Your task to perform on an android device: turn off translation in the chrome app Image 0: 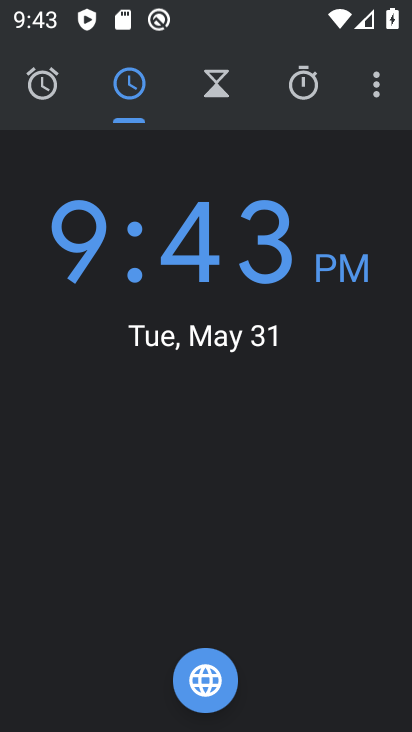
Step 0: press home button
Your task to perform on an android device: turn off translation in the chrome app Image 1: 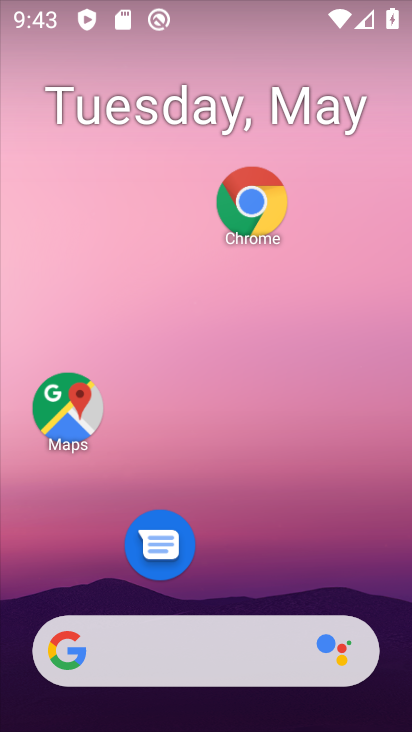
Step 1: drag from (394, 614) to (319, 116)
Your task to perform on an android device: turn off translation in the chrome app Image 2: 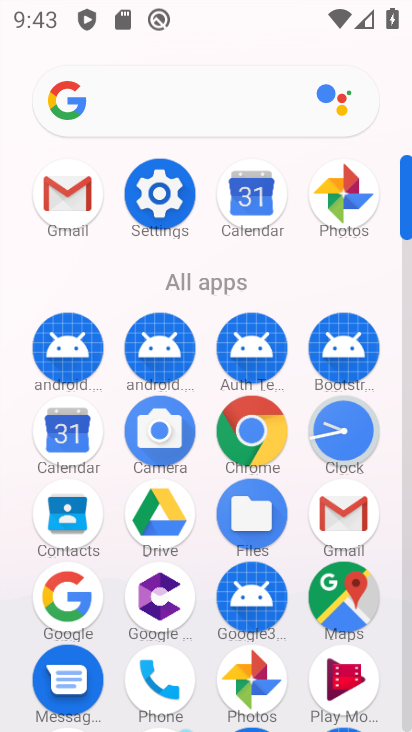
Step 2: click (256, 443)
Your task to perform on an android device: turn off translation in the chrome app Image 3: 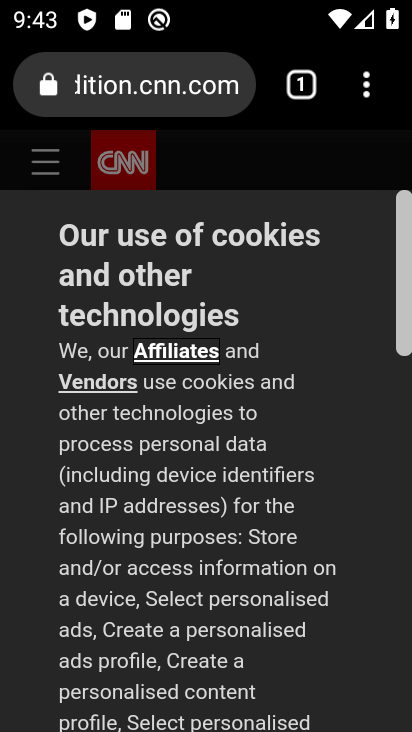
Step 3: click (380, 106)
Your task to perform on an android device: turn off translation in the chrome app Image 4: 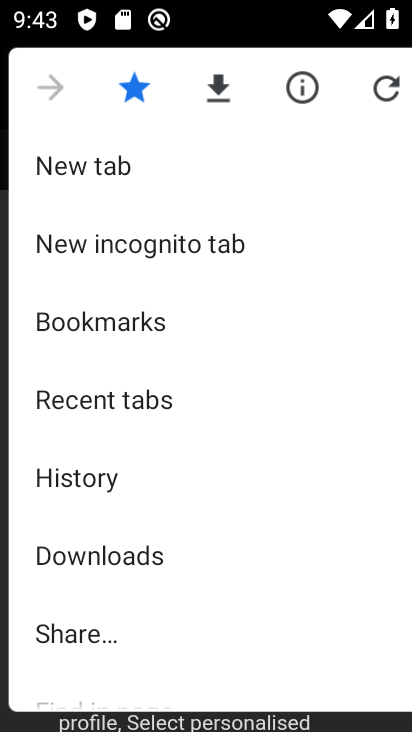
Step 4: drag from (220, 651) to (166, 167)
Your task to perform on an android device: turn off translation in the chrome app Image 5: 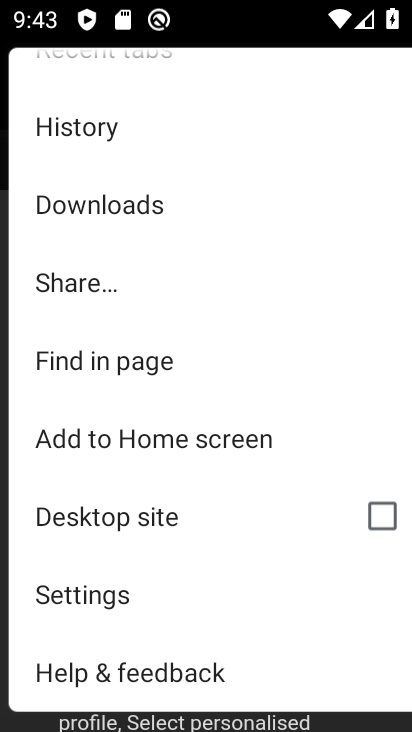
Step 5: click (164, 592)
Your task to perform on an android device: turn off translation in the chrome app Image 6: 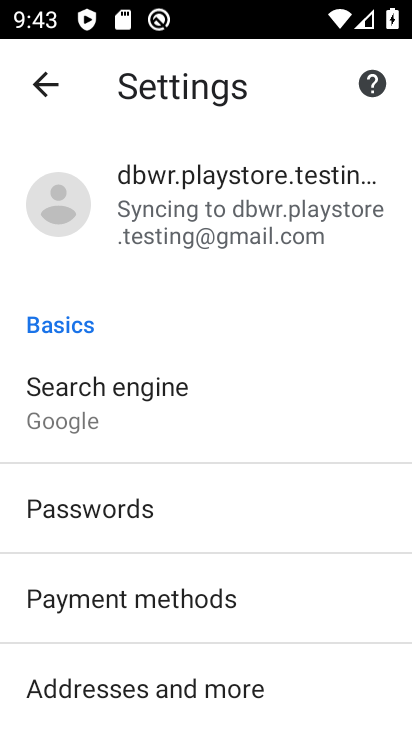
Step 6: drag from (217, 656) to (200, 108)
Your task to perform on an android device: turn off translation in the chrome app Image 7: 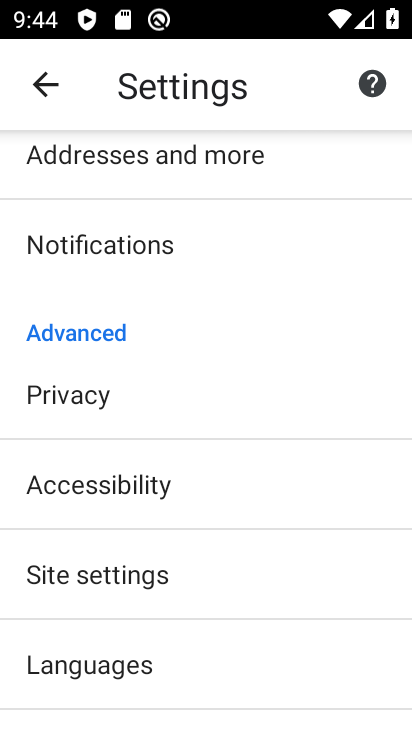
Step 7: click (198, 652)
Your task to perform on an android device: turn off translation in the chrome app Image 8: 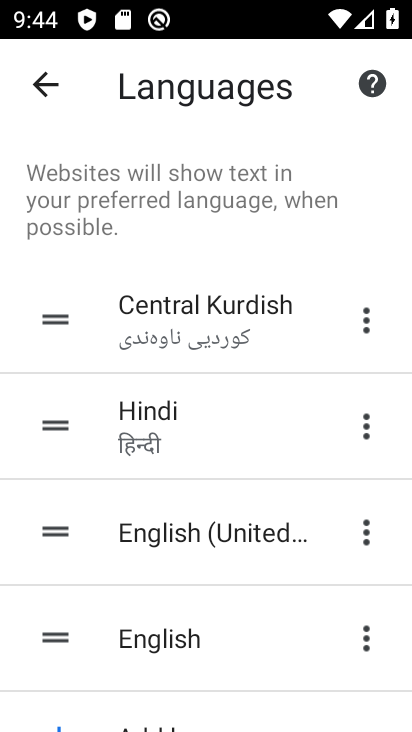
Step 8: task complete